Your task to perform on an android device: set the timer Image 0: 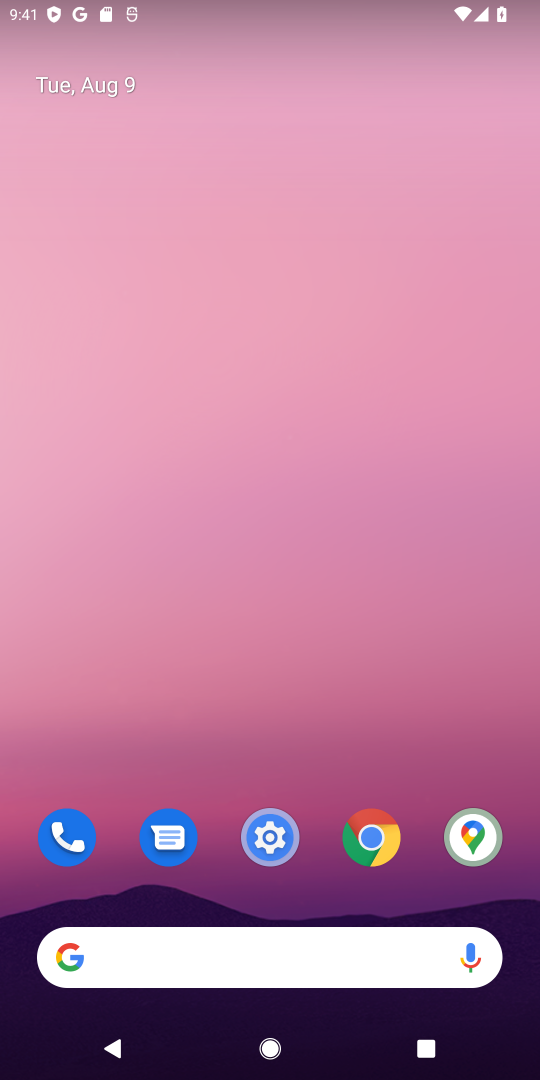
Step 0: drag from (302, 910) to (280, 134)
Your task to perform on an android device: set the timer Image 1: 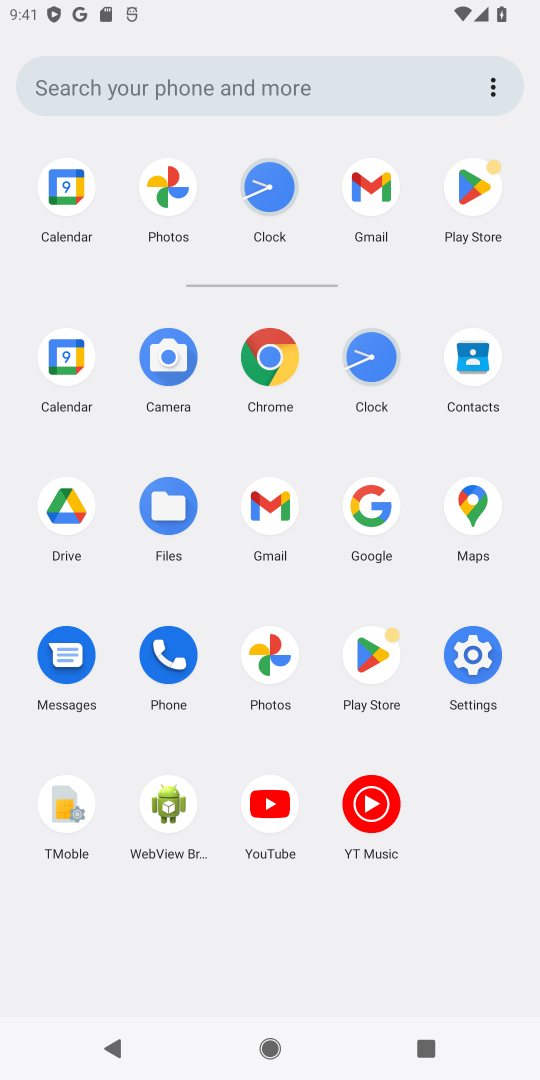
Step 1: click (371, 361)
Your task to perform on an android device: set the timer Image 2: 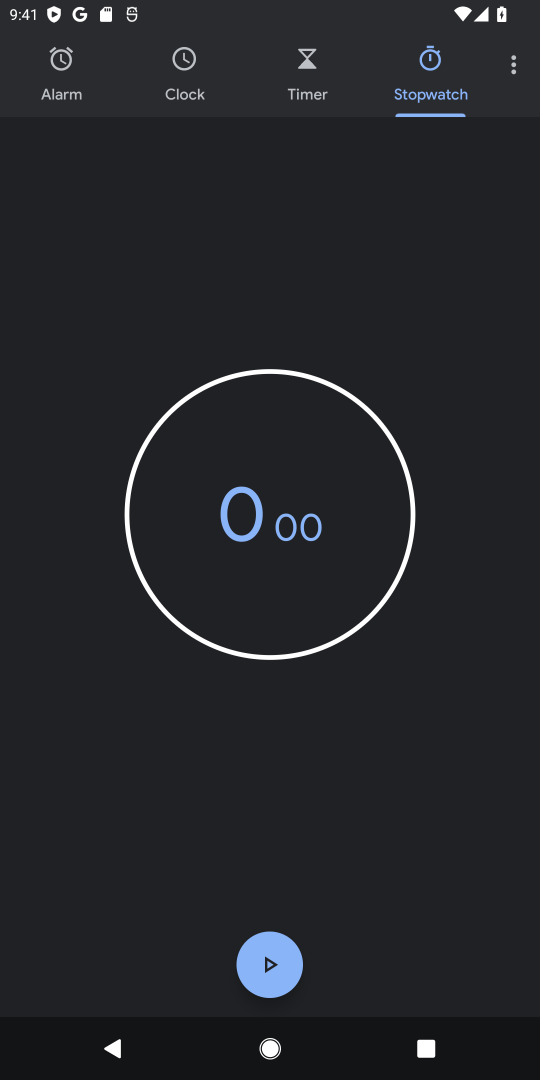
Step 2: click (305, 66)
Your task to perform on an android device: set the timer Image 3: 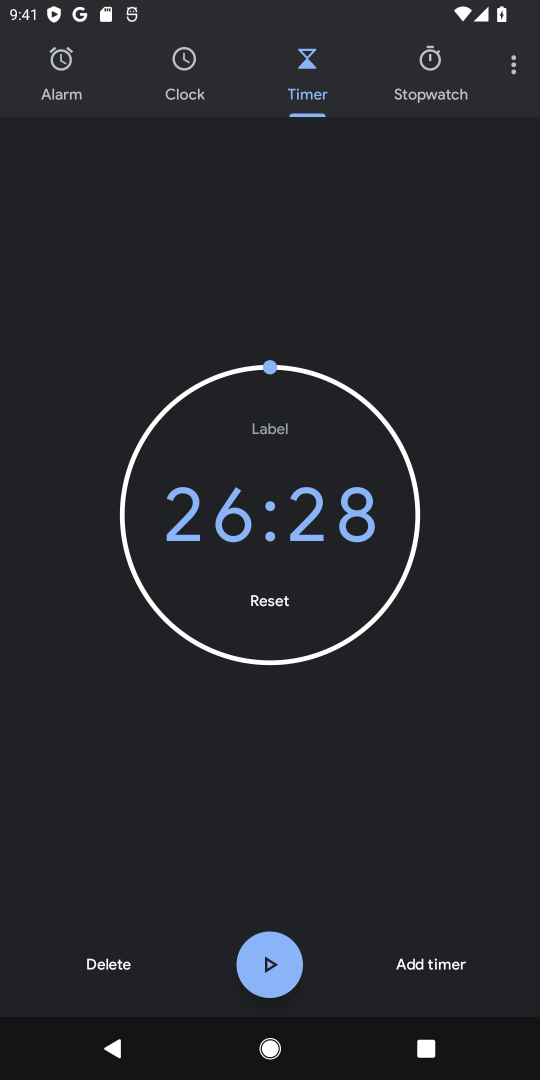
Step 3: click (425, 965)
Your task to perform on an android device: set the timer Image 4: 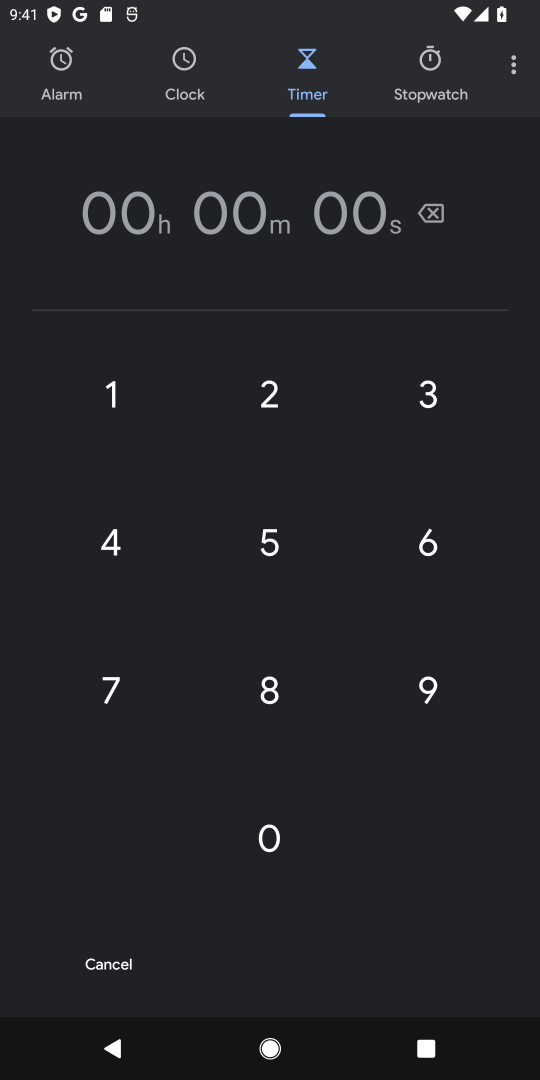
Step 4: click (266, 541)
Your task to perform on an android device: set the timer Image 5: 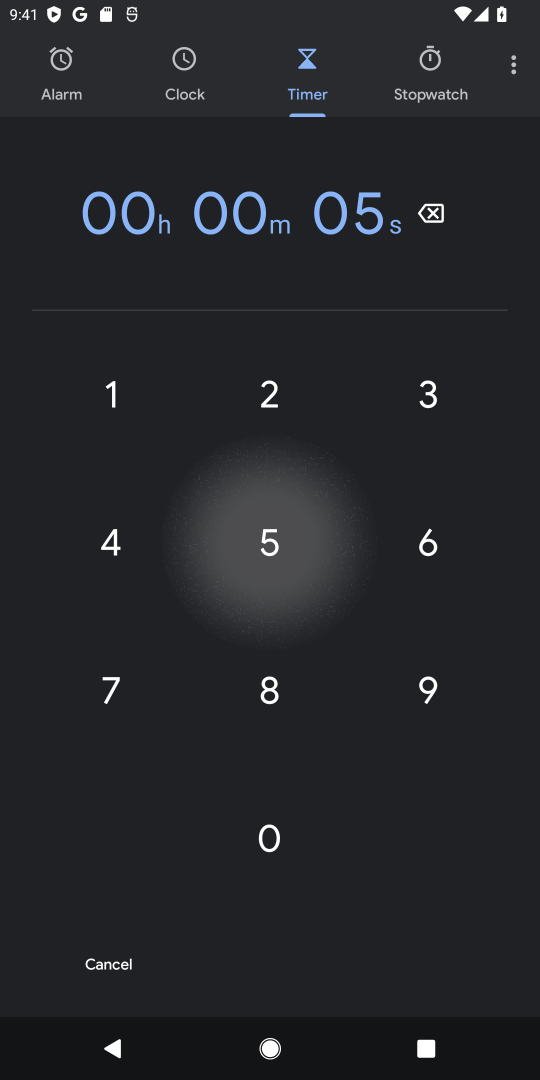
Step 5: click (262, 685)
Your task to perform on an android device: set the timer Image 6: 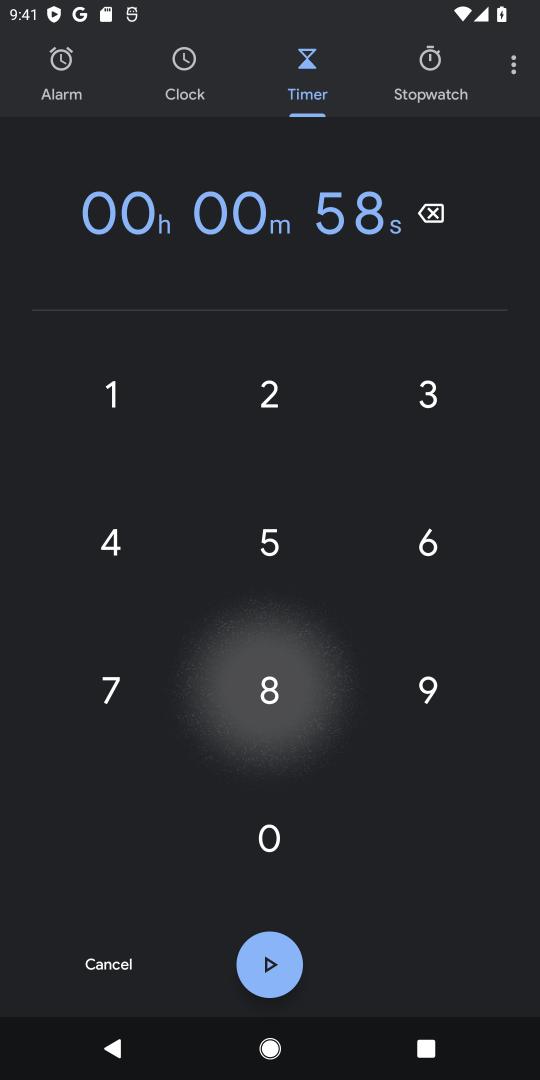
Step 6: click (295, 807)
Your task to perform on an android device: set the timer Image 7: 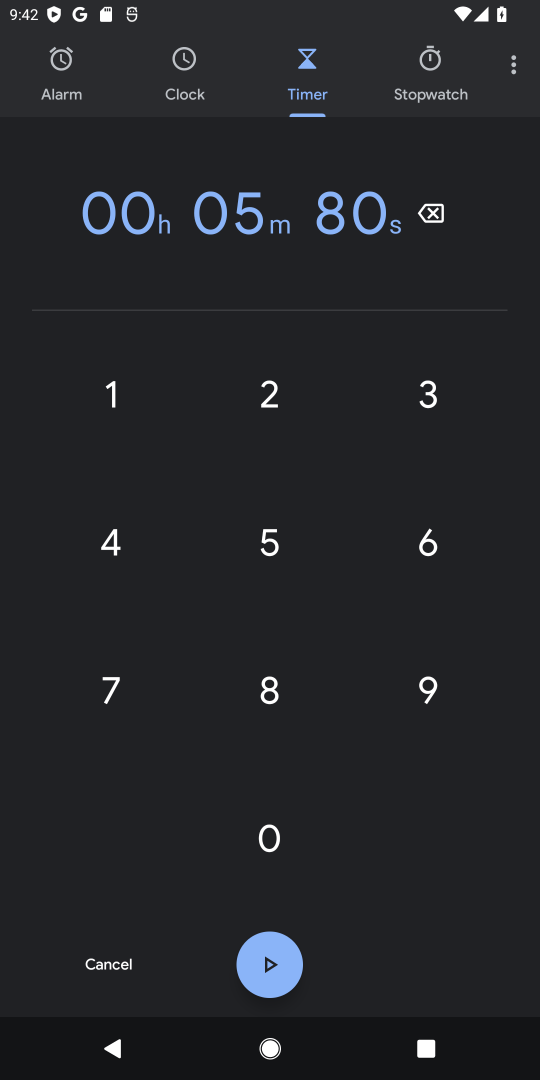
Step 7: click (295, 960)
Your task to perform on an android device: set the timer Image 8: 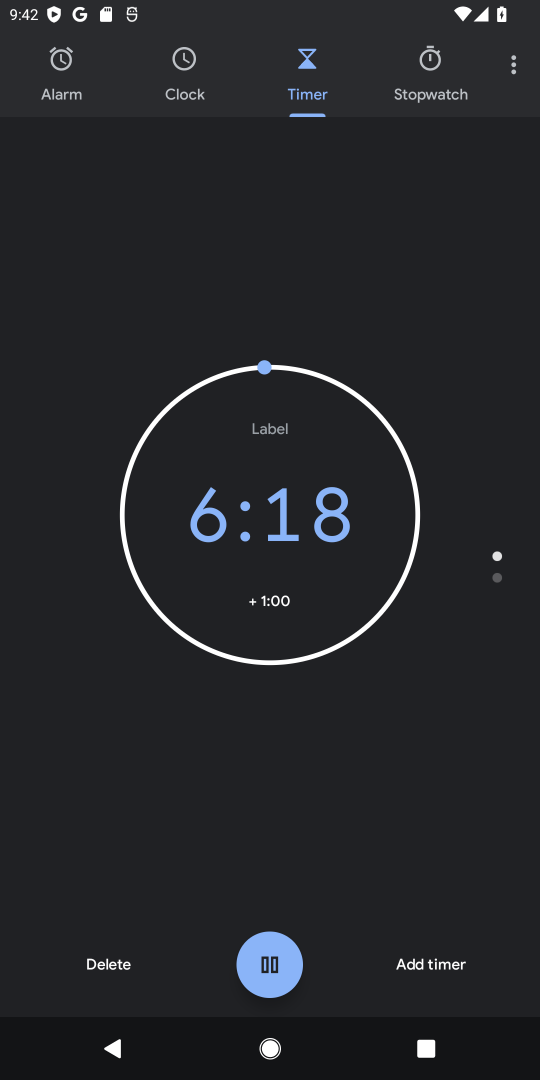
Step 8: task complete